Your task to perform on an android device: What's the weather going to be tomorrow? Image 0: 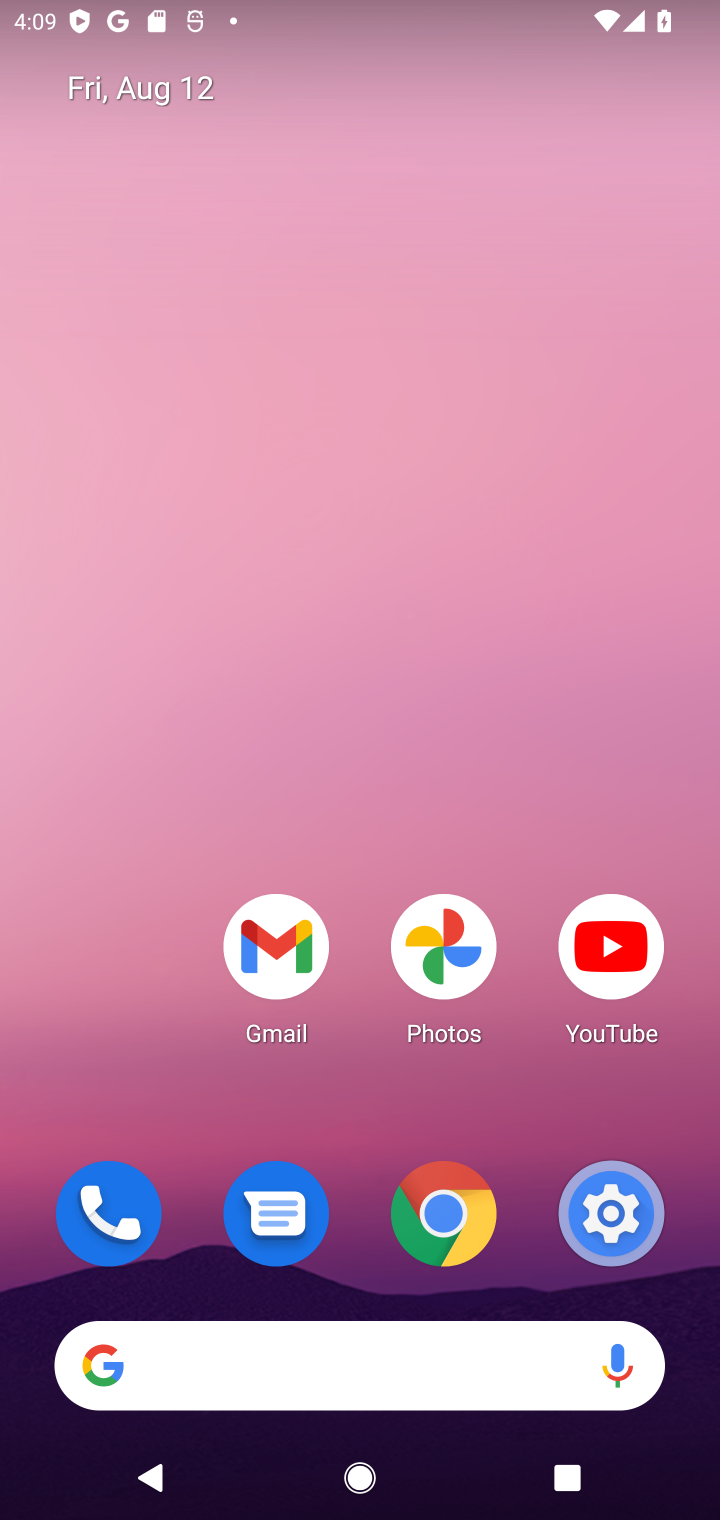
Step 0: drag from (176, 947) to (274, 2)
Your task to perform on an android device: What's the weather going to be tomorrow? Image 1: 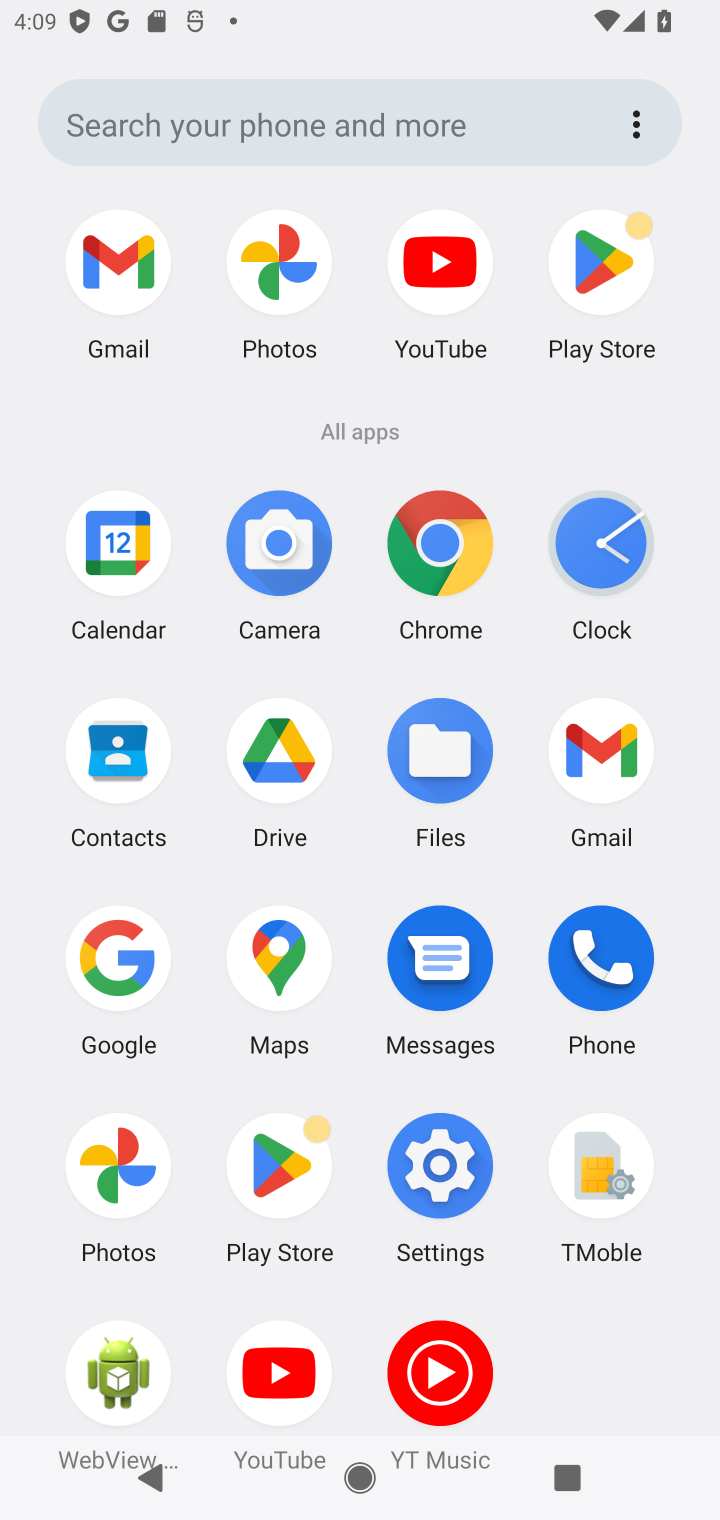
Step 1: click (432, 543)
Your task to perform on an android device: What's the weather going to be tomorrow? Image 2: 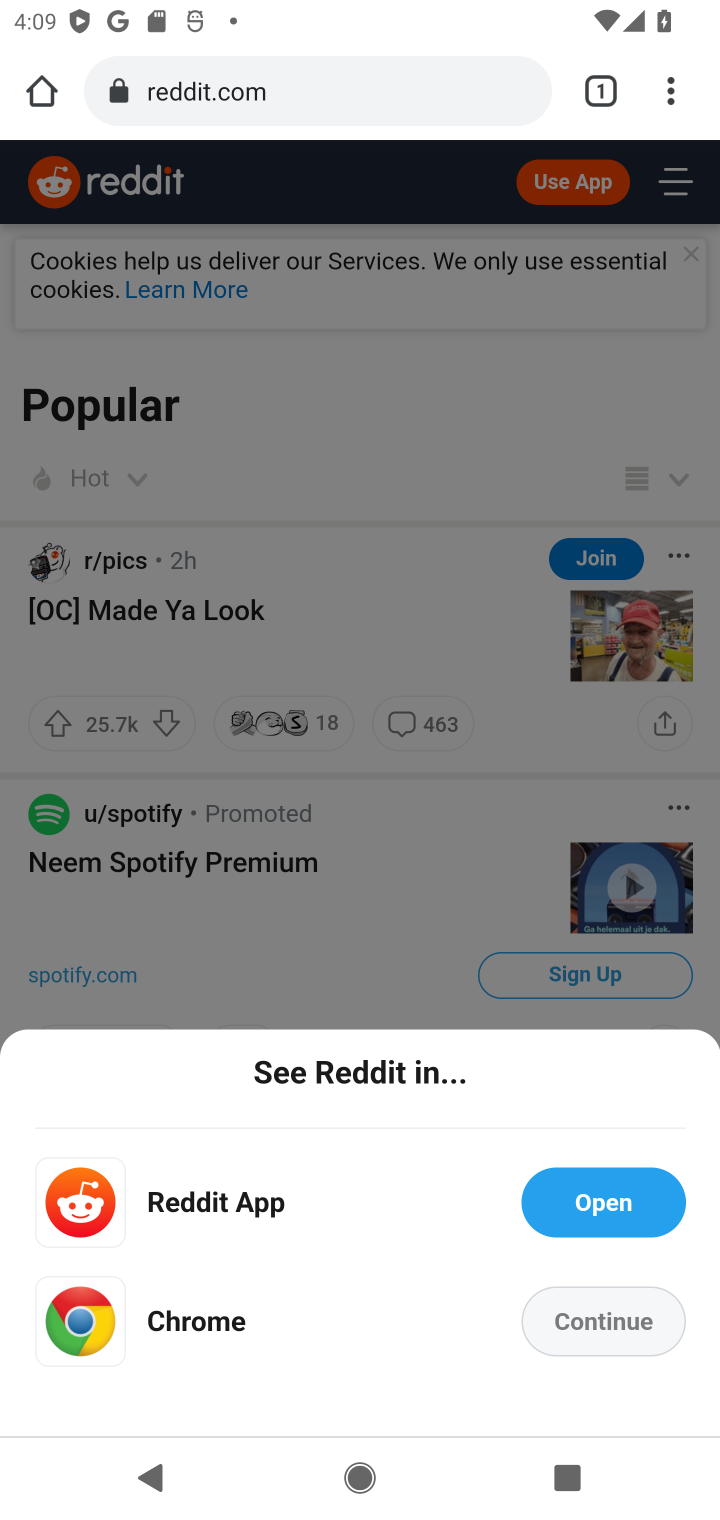
Step 2: click (202, 85)
Your task to perform on an android device: What's the weather going to be tomorrow? Image 3: 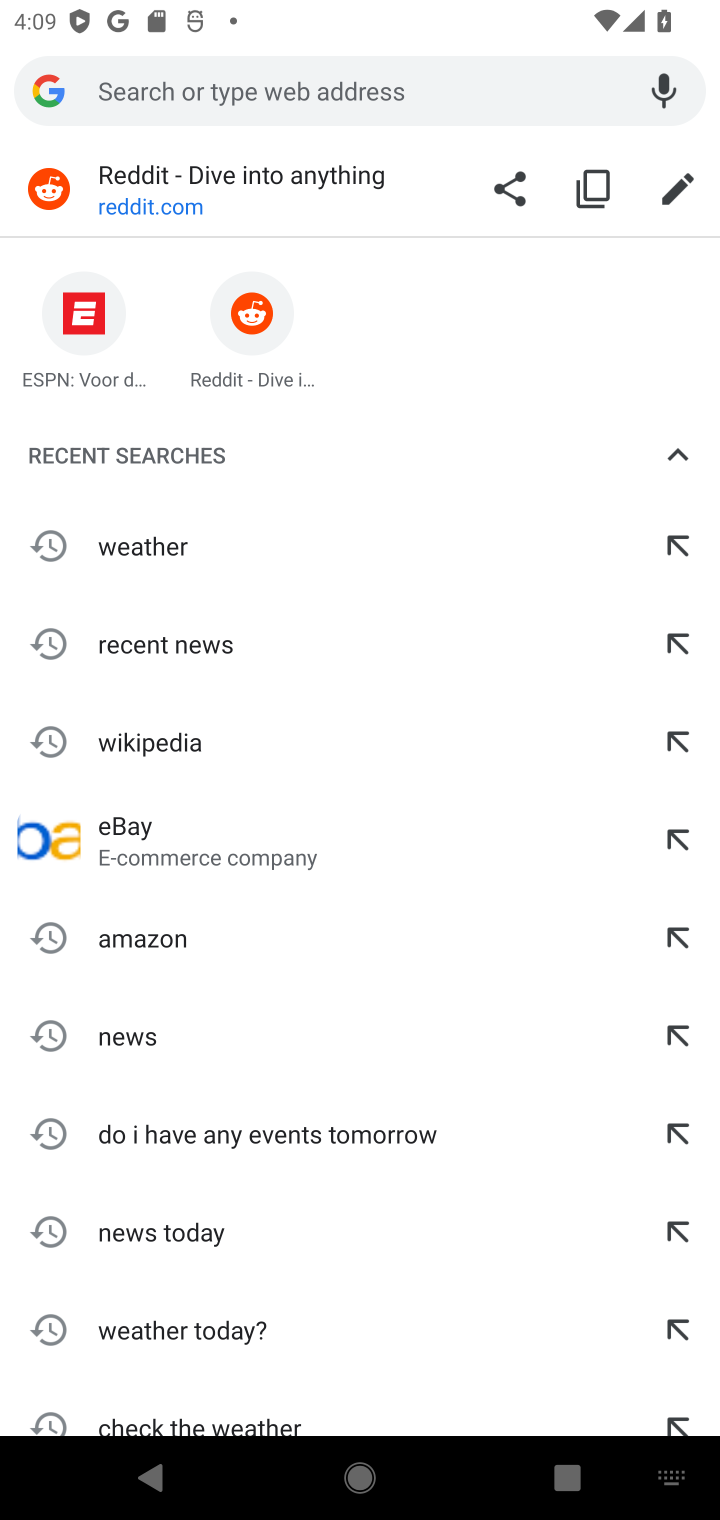
Step 3: type "weather"
Your task to perform on an android device: What's the weather going to be tomorrow? Image 4: 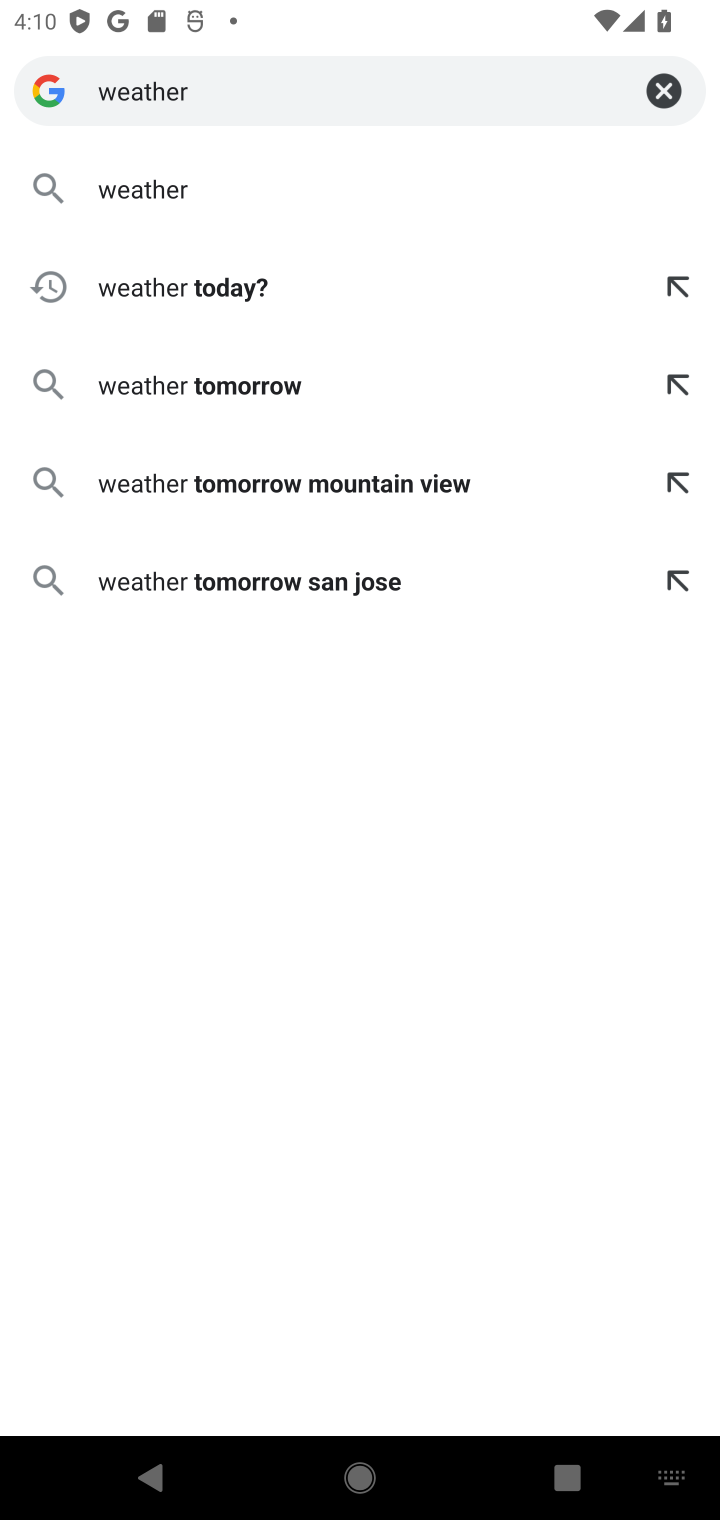
Step 4: click (157, 198)
Your task to perform on an android device: What's the weather going to be tomorrow? Image 5: 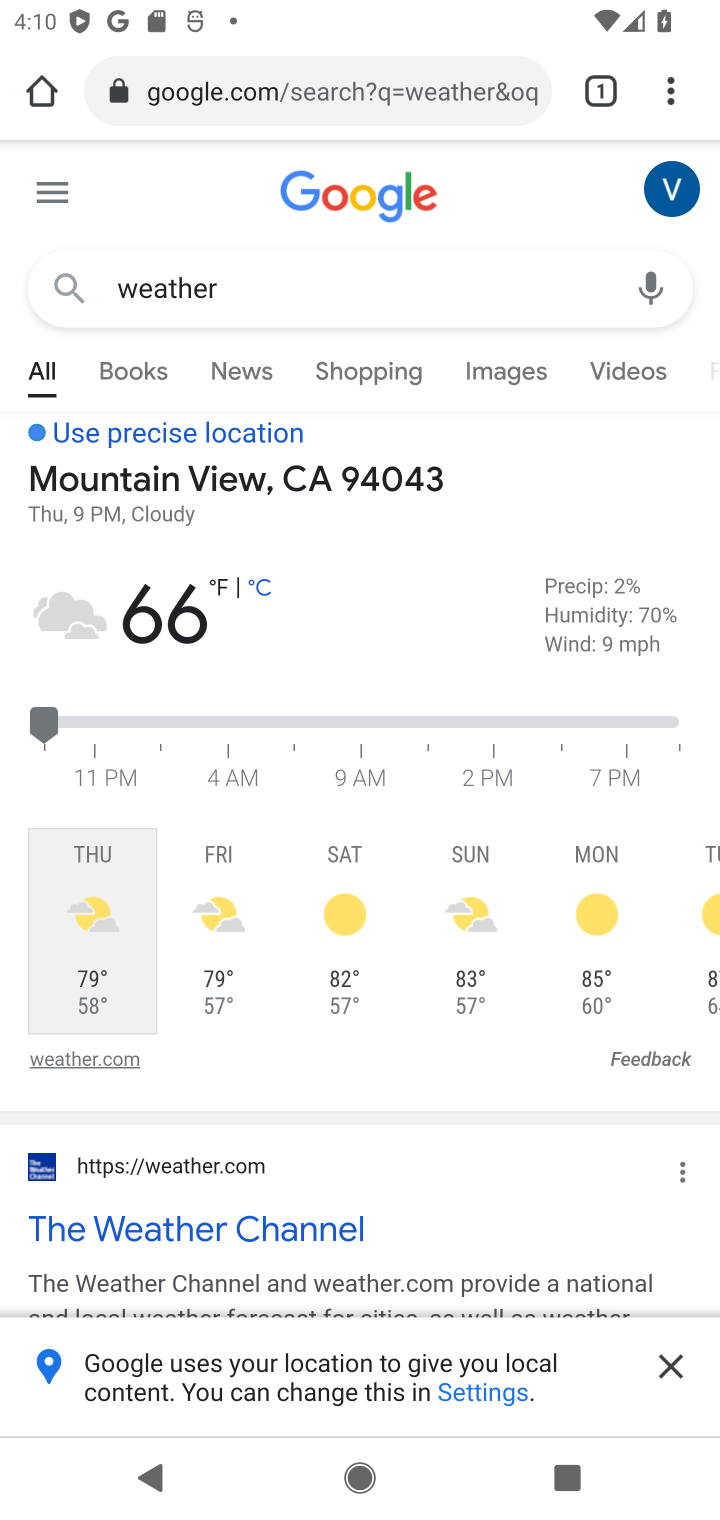
Step 5: click (235, 883)
Your task to perform on an android device: What's the weather going to be tomorrow? Image 6: 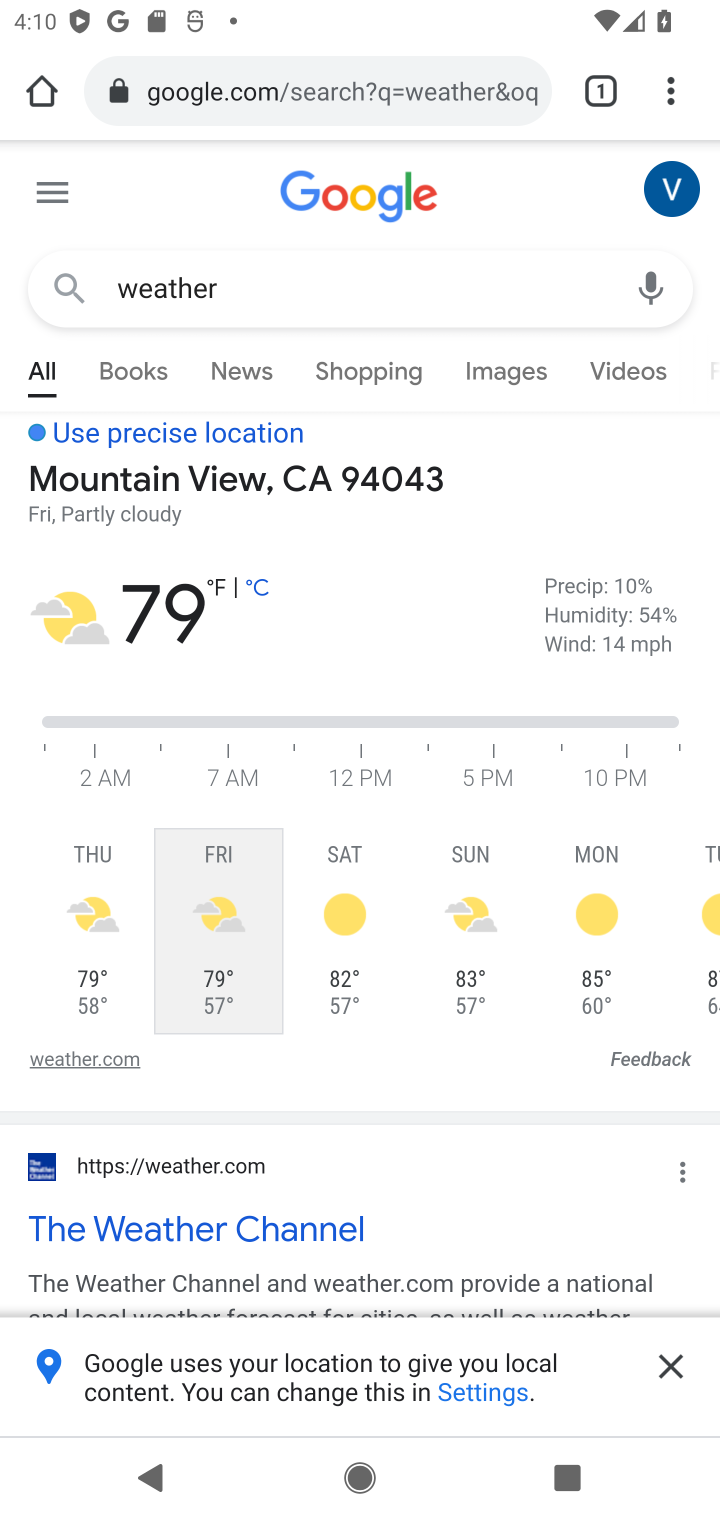
Step 6: task complete